Your task to perform on an android device: Go to eBay Image 0: 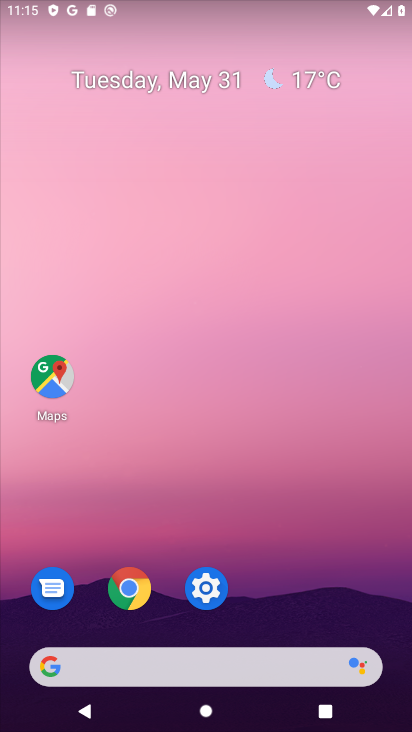
Step 0: press home button
Your task to perform on an android device: Go to eBay Image 1: 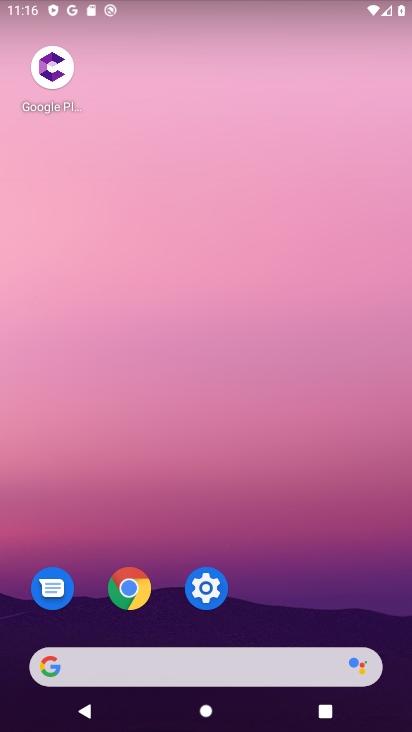
Step 1: click (129, 592)
Your task to perform on an android device: Go to eBay Image 2: 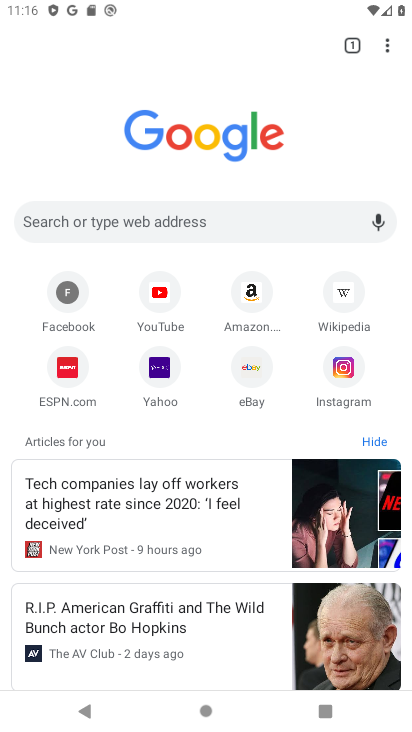
Step 2: click (249, 356)
Your task to perform on an android device: Go to eBay Image 3: 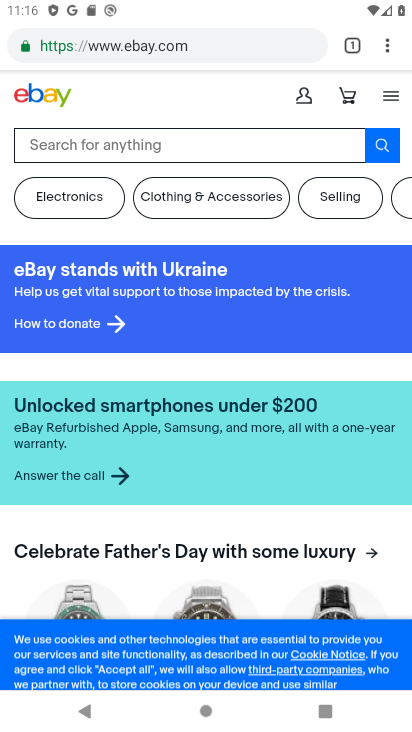
Step 3: task complete